Your task to perform on an android device: allow notifications from all sites in the chrome app Image 0: 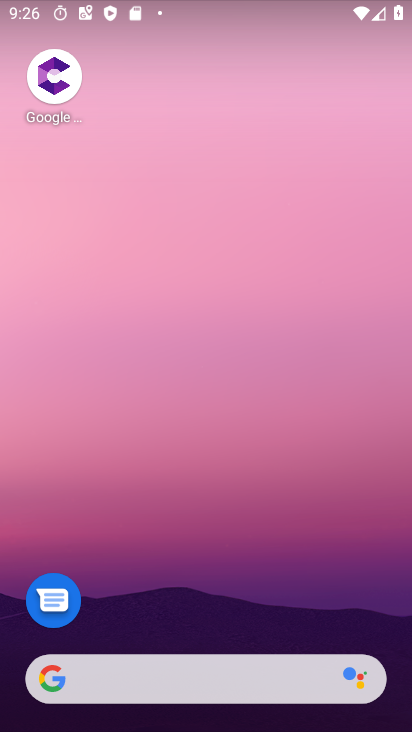
Step 0: drag from (197, 591) to (214, 41)
Your task to perform on an android device: allow notifications from all sites in the chrome app Image 1: 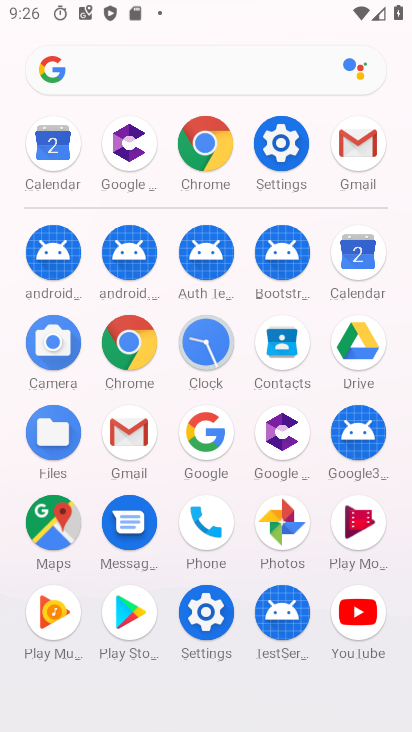
Step 1: click (132, 346)
Your task to perform on an android device: allow notifications from all sites in the chrome app Image 2: 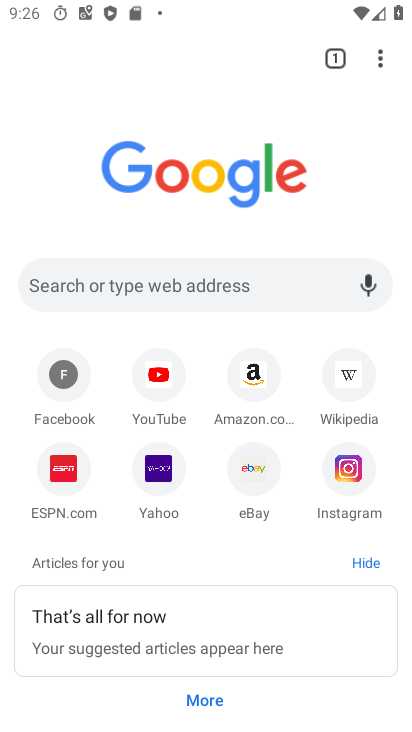
Step 2: click (371, 61)
Your task to perform on an android device: allow notifications from all sites in the chrome app Image 3: 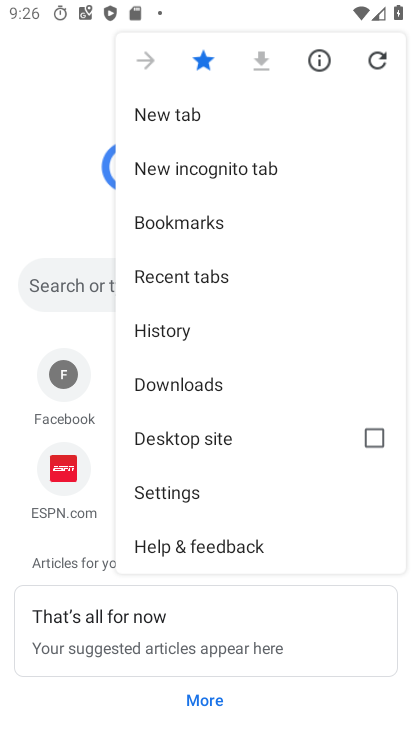
Step 3: click (175, 490)
Your task to perform on an android device: allow notifications from all sites in the chrome app Image 4: 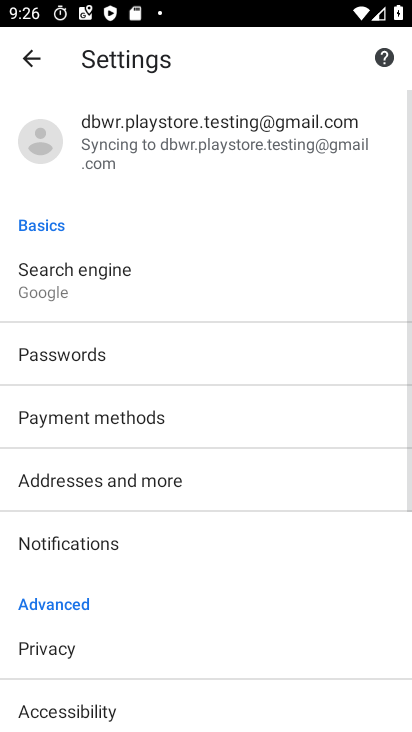
Step 4: drag from (226, 606) to (256, 185)
Your task to perform on an android device: allow notifications from all sites in the chrome app Image 5: 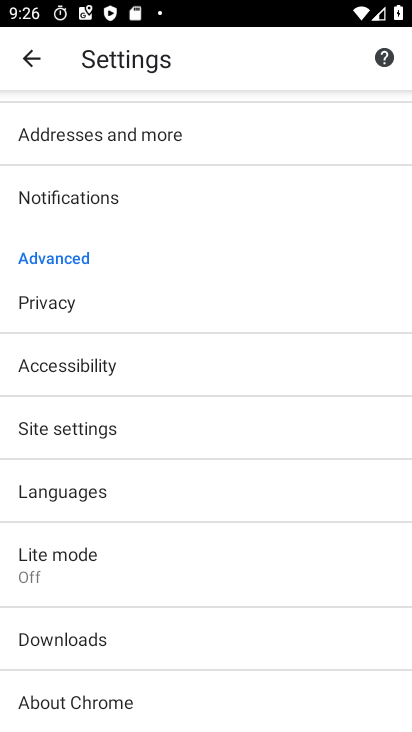
Step 5: click (61, 427)
Your task to perform on an android device: allow notifications from all sites in the chrome app Image 6: 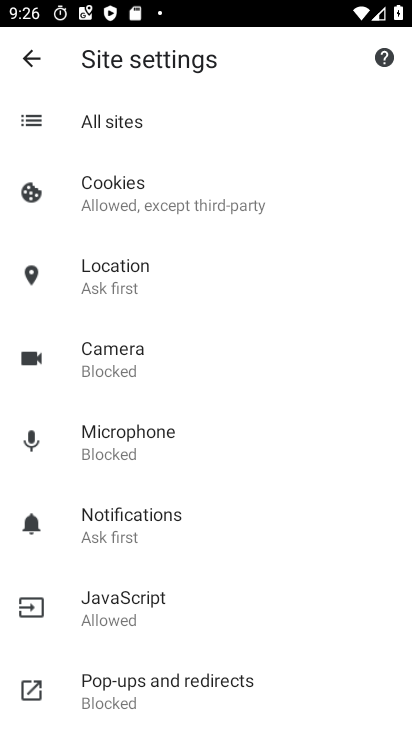
Step 6: click (134, 520)
Your task to perform on an android device: allow notifications from all sites in the chrome app Image 7: 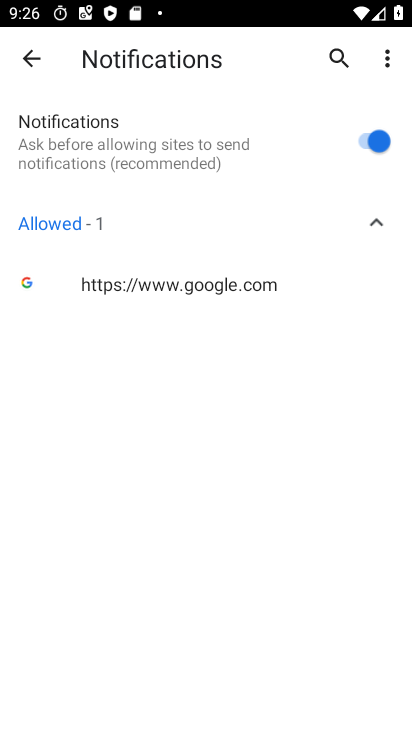
Step 7: task complete